Your task to perform on an android device: change timer sound Image 0: 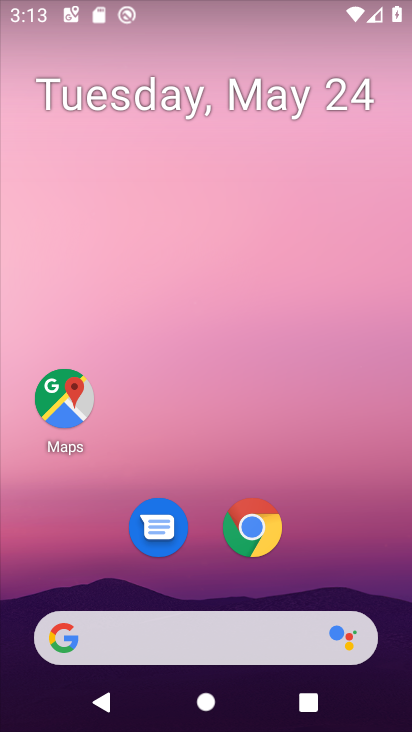
Step 0: drag from (341, 595) to (366, 32)
Your task to perform on an android device: change timer sound Image 1: 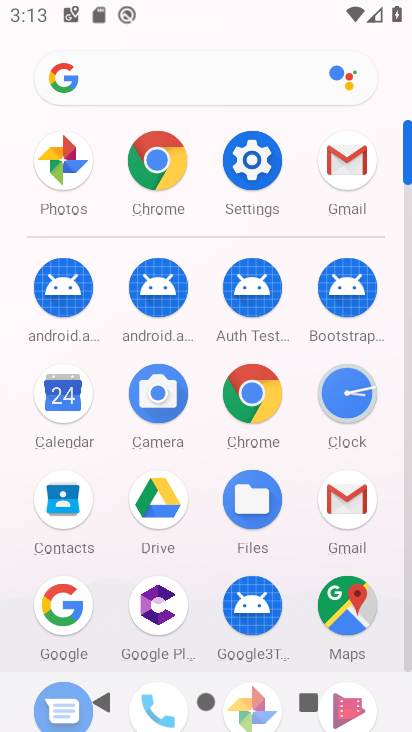
Step 1: click (351, 393)
Your task to perform on an android device: change timer sound Image 2: 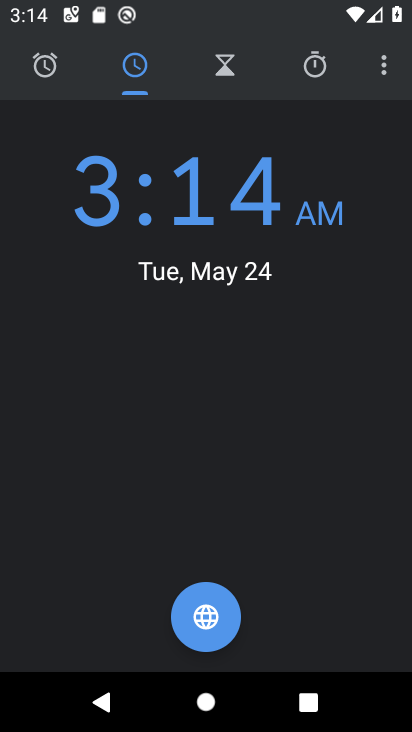
Step 2: click (386, 71)
Your task to perform on an android device: change timer sound Image 3: 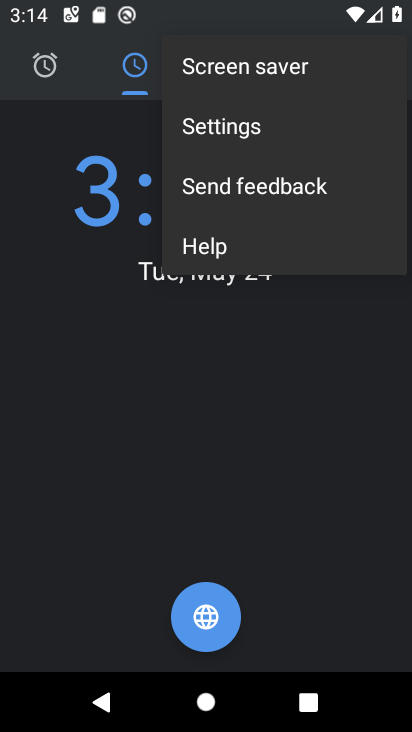
Step 3: click (219, 126)
Your task to perform on an android device: change timer sound Image 4: 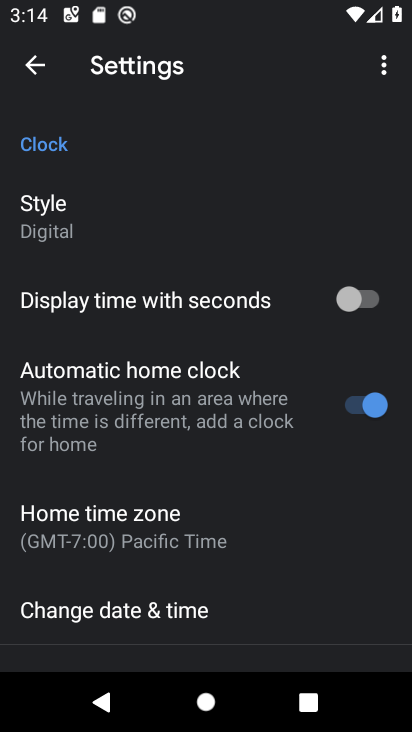
Step 4: drag from (282, 441) to (272, 136)
Your task to perform on an android device: change timer sound Image 5: 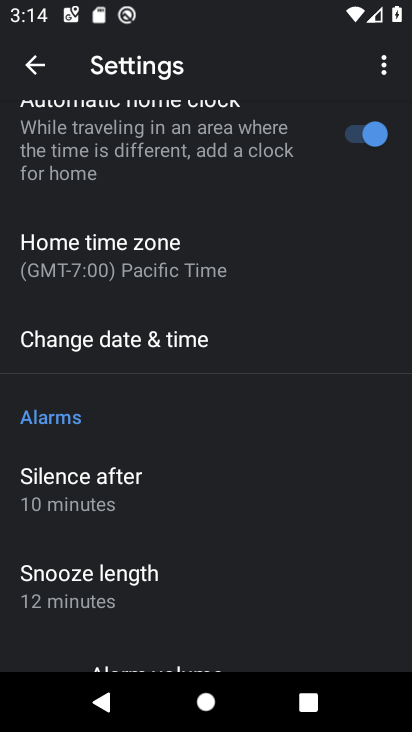
Step 5: drag from (187, 484) to (191, 188)
Your task to perform on an android device: change timer sound Image 6: 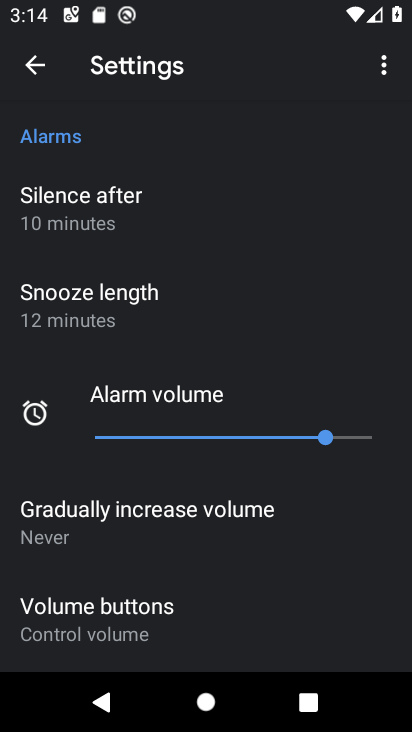
Step 6: drag from (167, 501) to (168, 210)
Your task to perform on an android device: change timer sound Image 7: 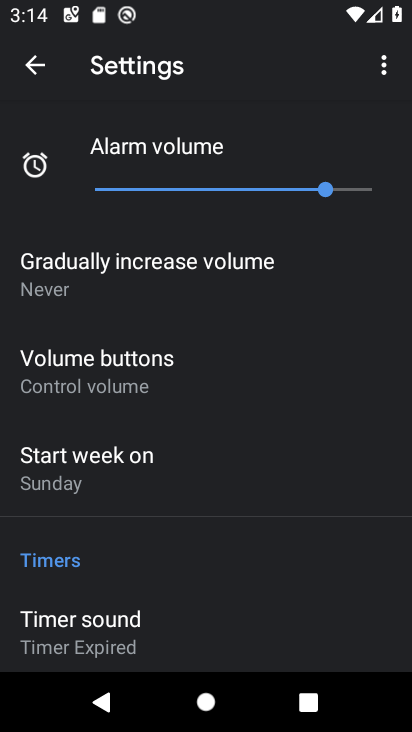
Step 7: drag from (165, 501) to (166, 243)
Your task to perform on an android device: change timer sound Image 8: 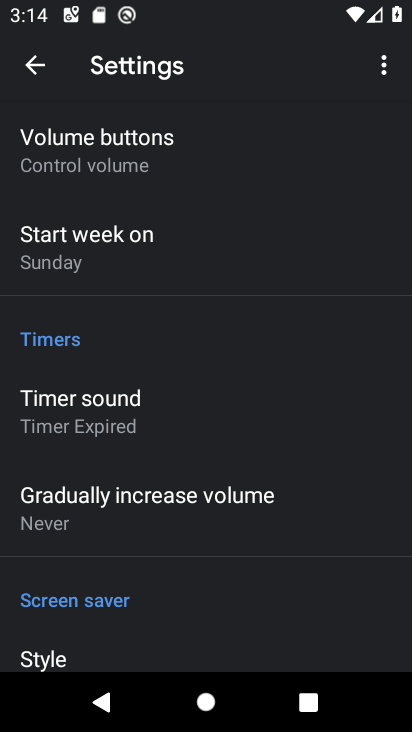
Step 8: click (79, 416)
Your task to perform on an android device: change timer sound Image 9: 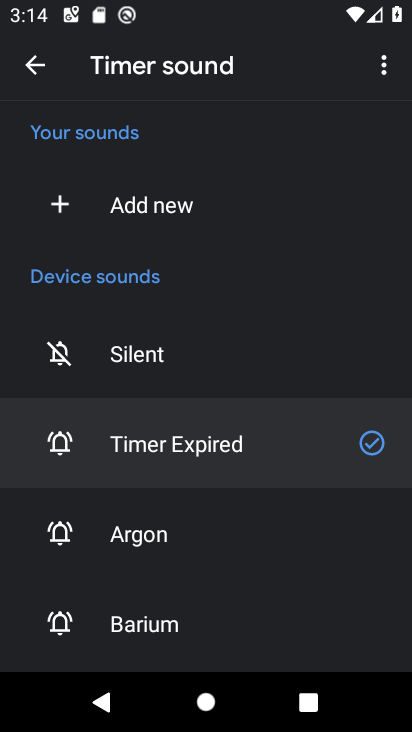
Step 9: click (143, 617)
Your task to perform on an android device: change timer sound Image 10: 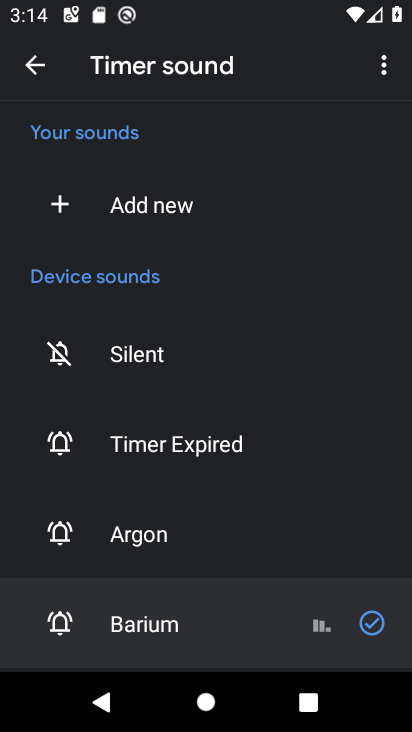
Step 10: task complete